Your task to perform on an android device: Go to accessibility settings Image 0: 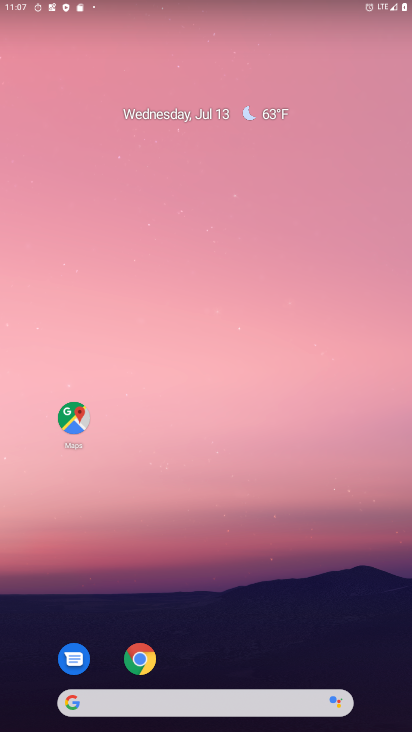
Step 0: drag from (325, 641) to (275, 121)
Your task to perform on an android device: Go to accessibility settings Image 1: 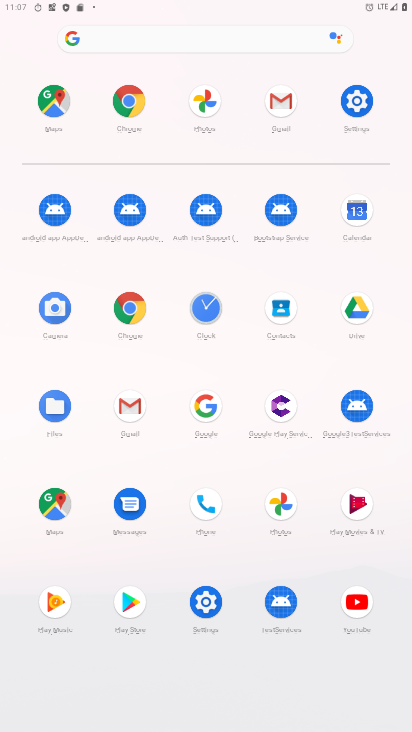
Step 1: click (366, 100)
Your task to perform on an android device: Go to accessibility settings Image 2: 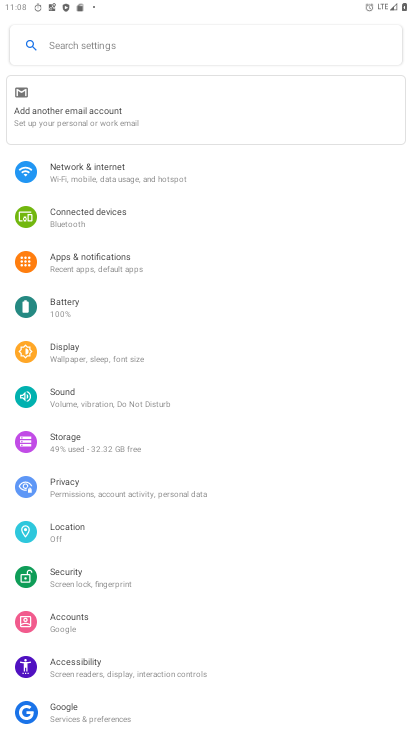
Step 2: drag from (166, 614) to (236, 198)
Your task to perform on an android device: Go to accessibility settings Image 3: 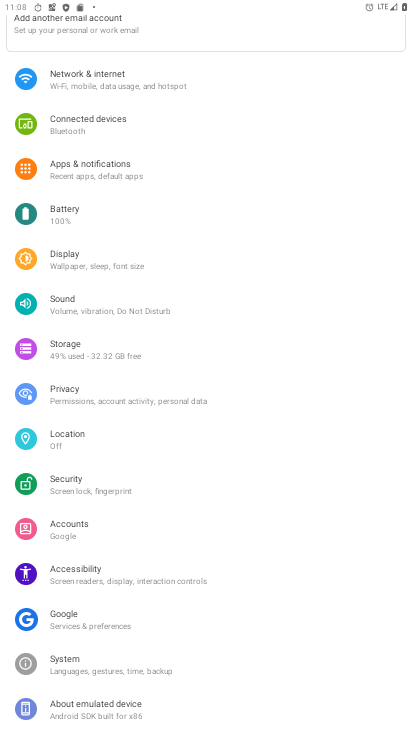
Step 3: click (96, 571)
Your task to perform on an android device: Go to accessibility settings Image 4: 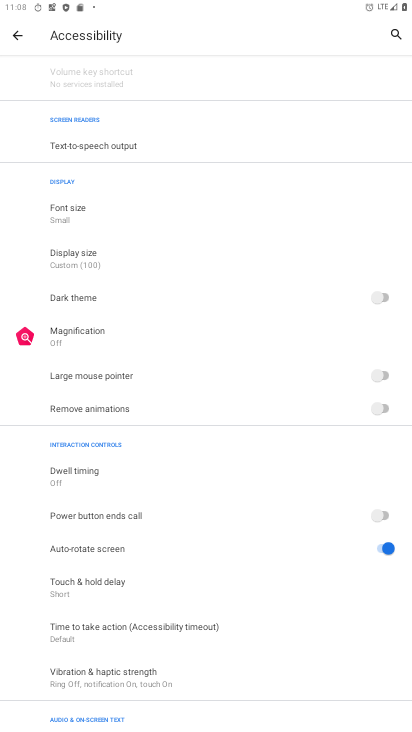
Step 4: task complete